Your task to perform on an android device: empty trash in google photos Image 0: 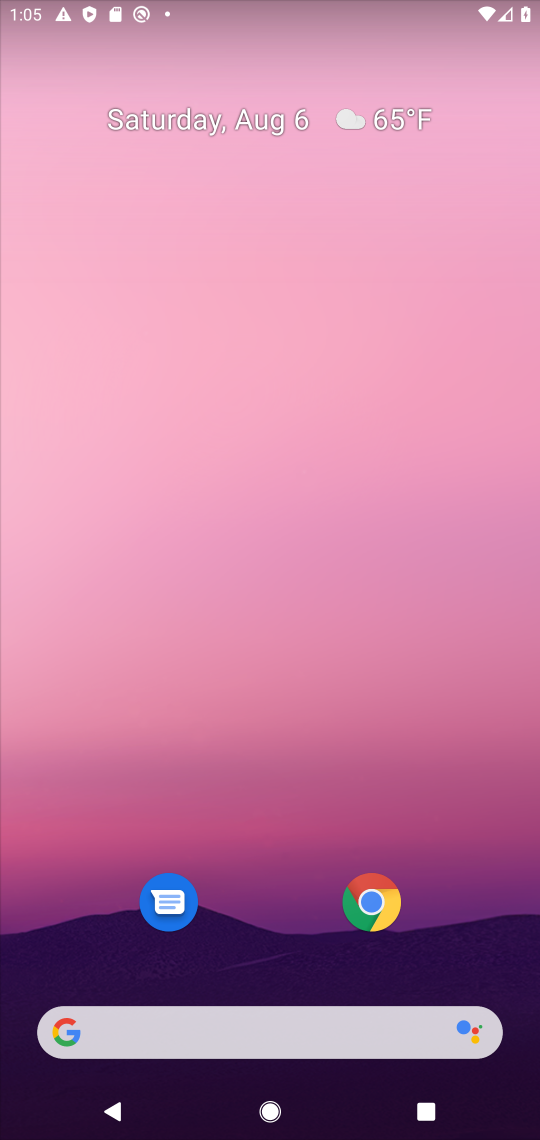
Step 0: drag from (267, 914) to (314, 1)
Your task to perform on an android device: empty trash in google photos Image 1: 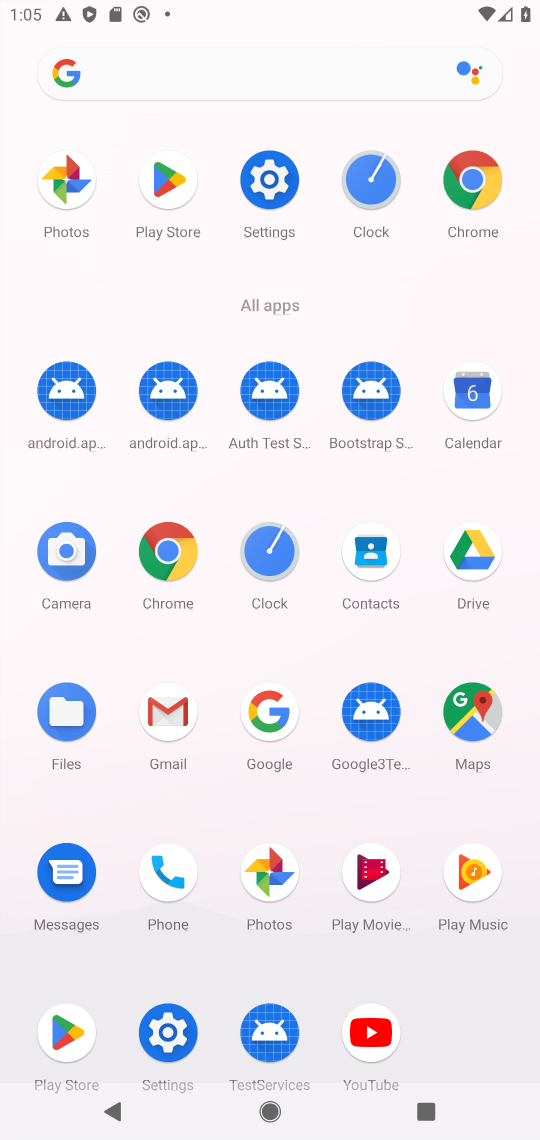
Step 1: click (64, 185)
Your task to perform on an android device: empty trash in google photos Image 2: 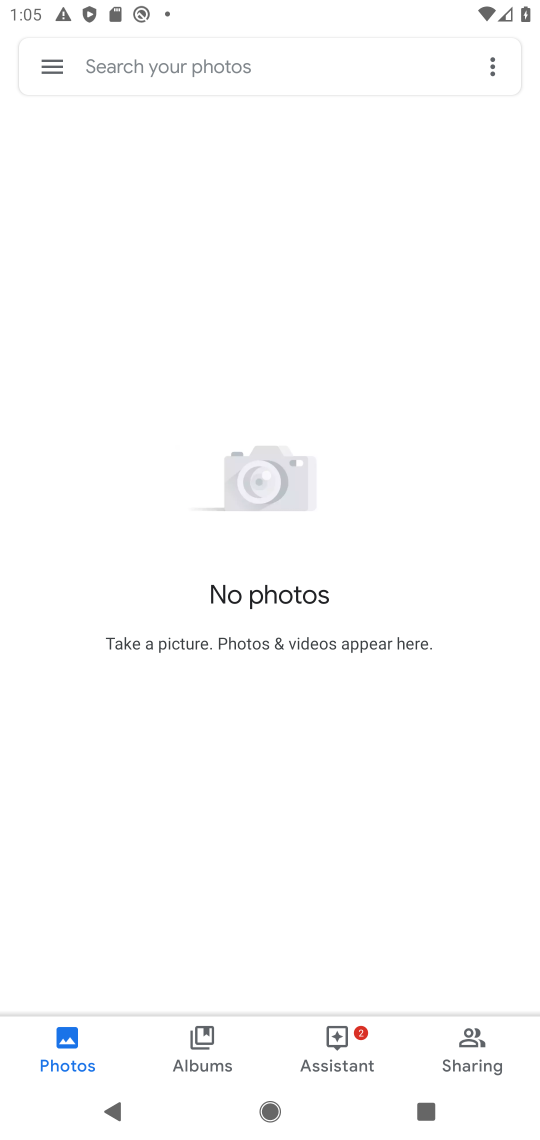
Step 2: click (48, 66)
Your task to perform on an android device: empty trash in google photos Image 3: 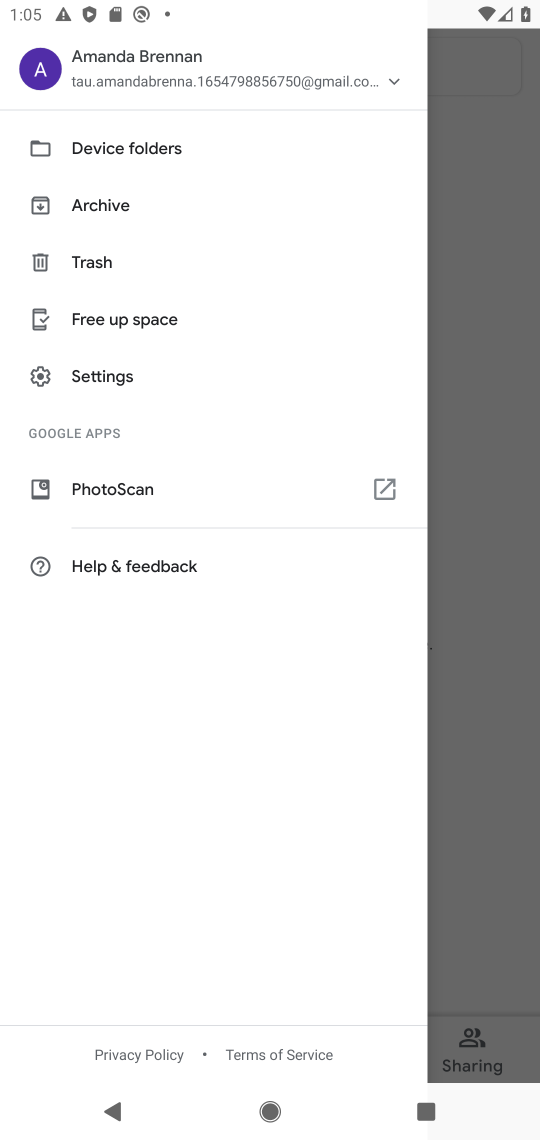
Step 3: click (84, 257)
Your task to perform on an android device: empty trash in google photos Image 4: 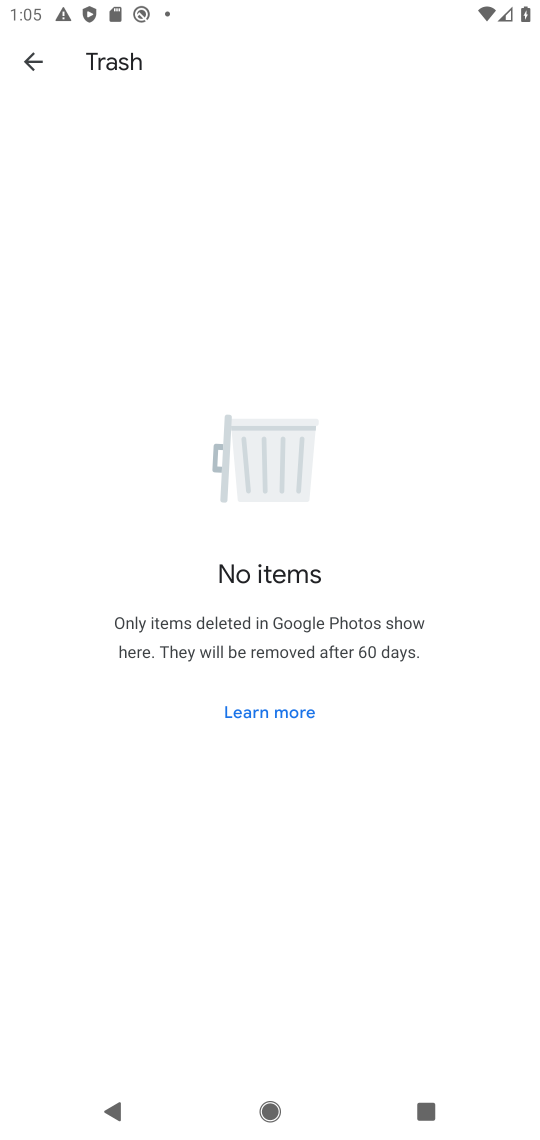
Step 4: task complete